Your task to perform on an android device: toggle location history Image 0: 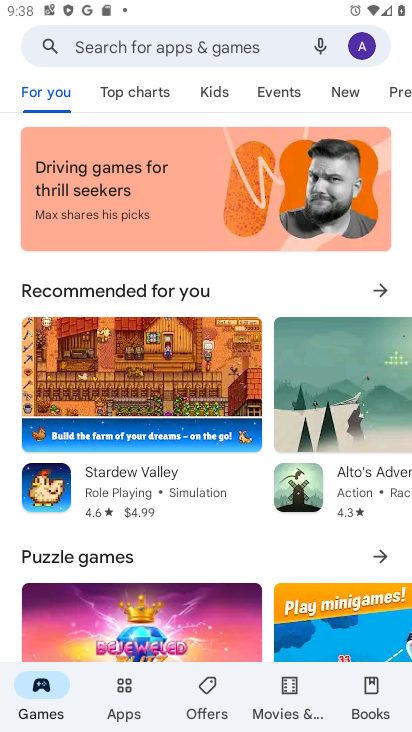
Step 0: press home button
Your task to perform on an android device: toggle location history Image 1: 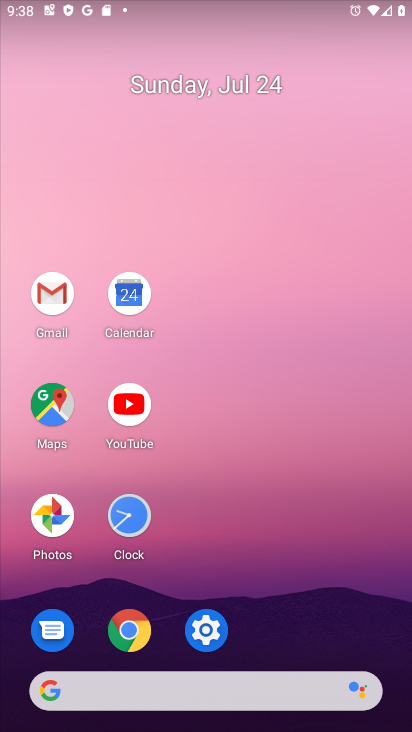
Step 1: click (46, 406)
Your task to perform on an android device: toggle location history Image 2: 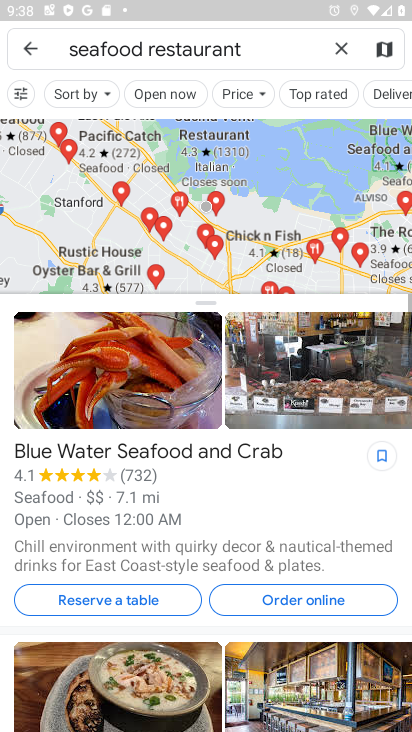
Step 2: click (32, 44)
Your task to perform on an android device: toggle location history Image 3: 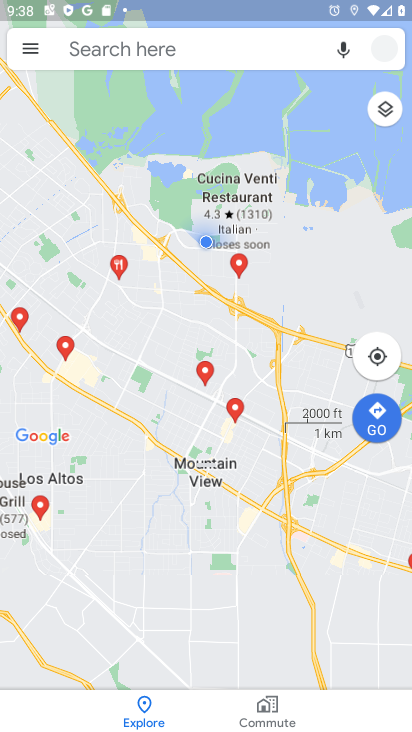
Step 3: click (29, 50)
Your task to perform on an android device: toggle location history Image 4: 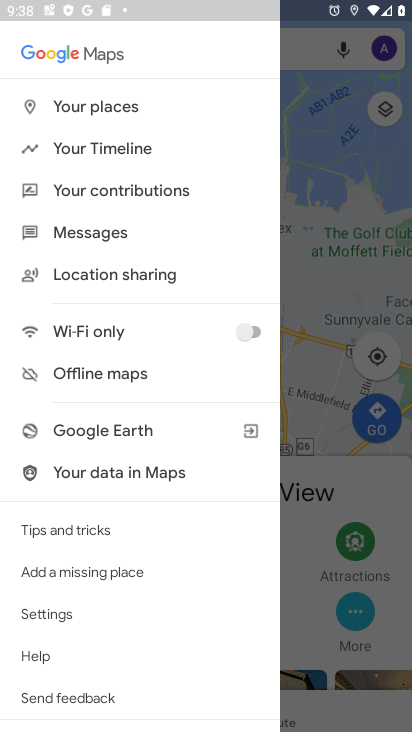
Step 4: click (92, 149)
Your task to perform on an android device: toggle location history Image 5: 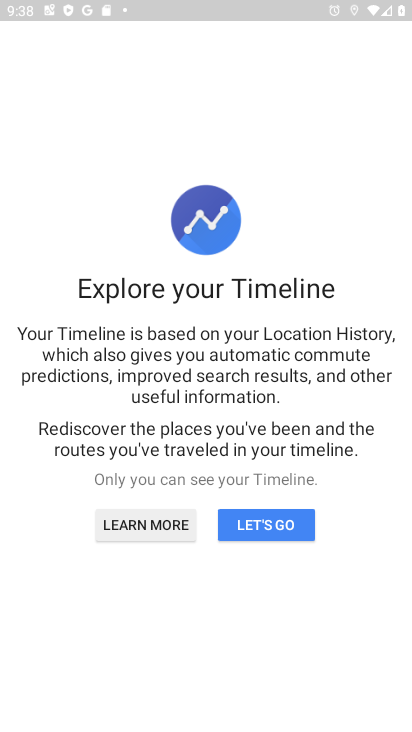
Step 5: click (241, 521)
Your task to perform on an android device: toggle location history Image 6: 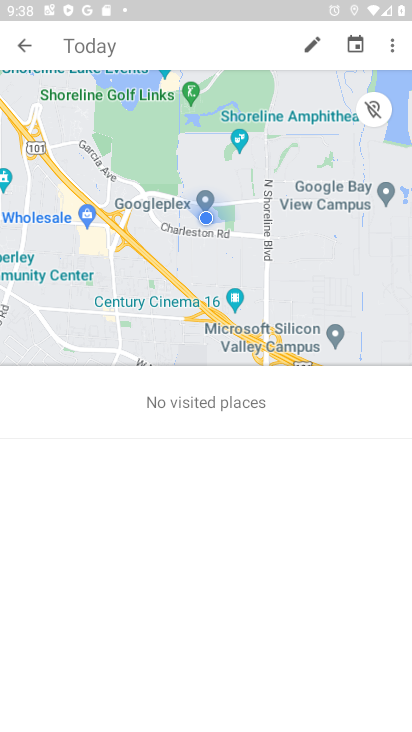
Step 6: click (392, 50)
Your task to perform on an android device: toggle location history Image 7: 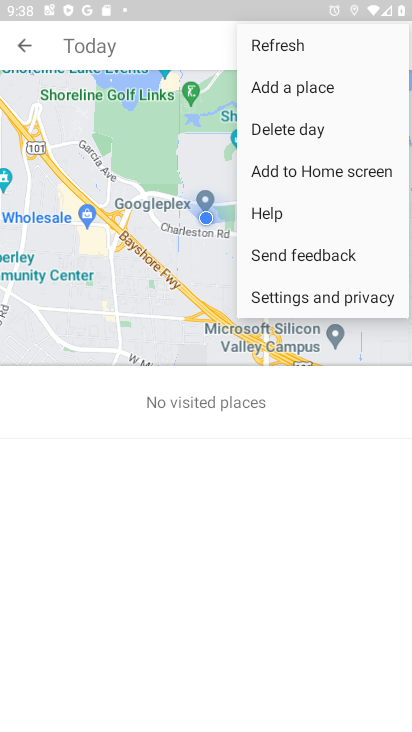
Step 7: click (276, 291)
Your task to perform on an android device: toggle location history Image 8: 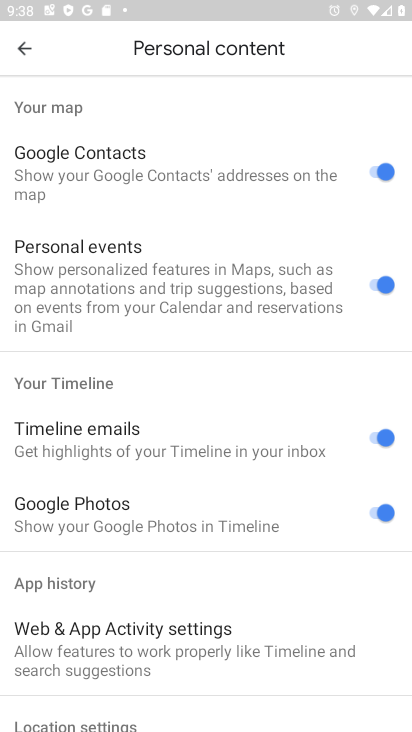
Step 8: drag from (231, 582) to (247, 219)
Your task to perform on an android device: toggle location history Image 9: 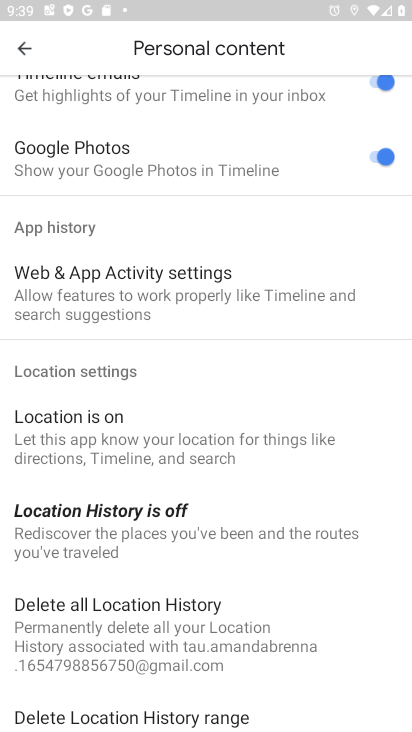
Step 9: click (104, 512)
Your task to perform on an android device: toggle location history Image 10: 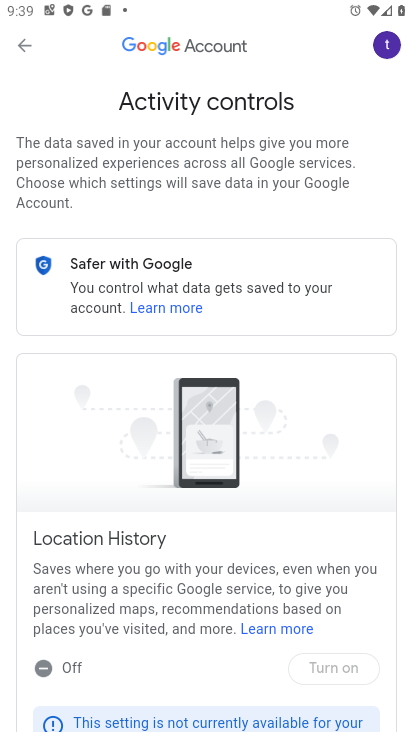
Step 10: drag from (222, 576) to (225, 304)
Your task to perform on an android device: toggle location history Image 11: 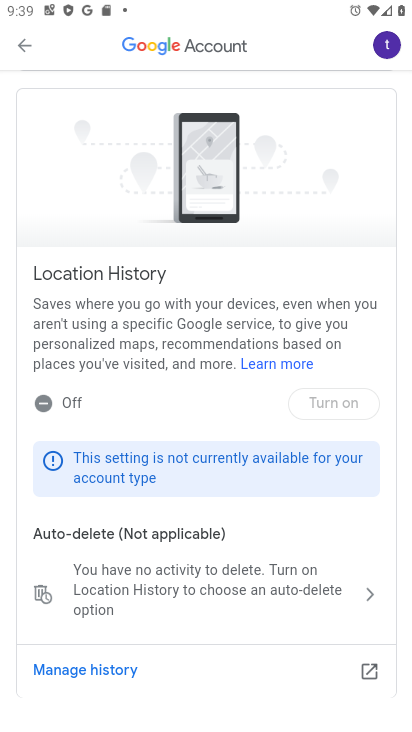
Step 11: click (309, 408)
Your task to perform on an android device: toggle location history Image 12: 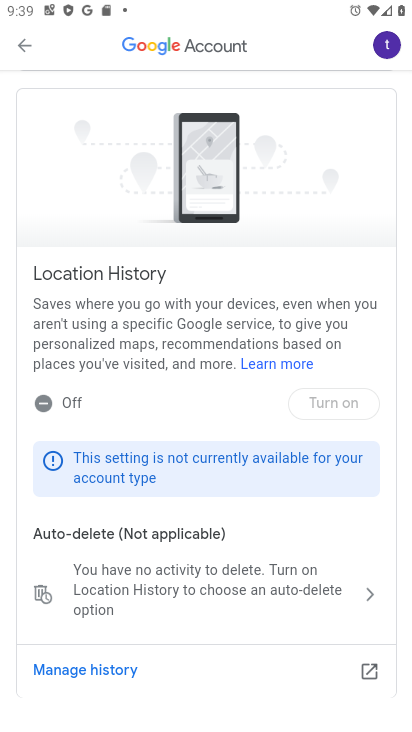
Step 12: task complete